Your task to perform on an android device: open a bookmark in the chrome app Image 0: 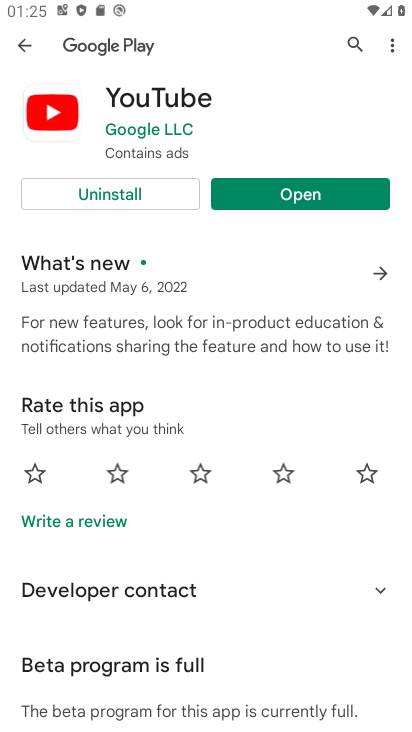
Step 0: press home button
Your task to perform on an android device: open a bookmark in the chrome app Image 1: 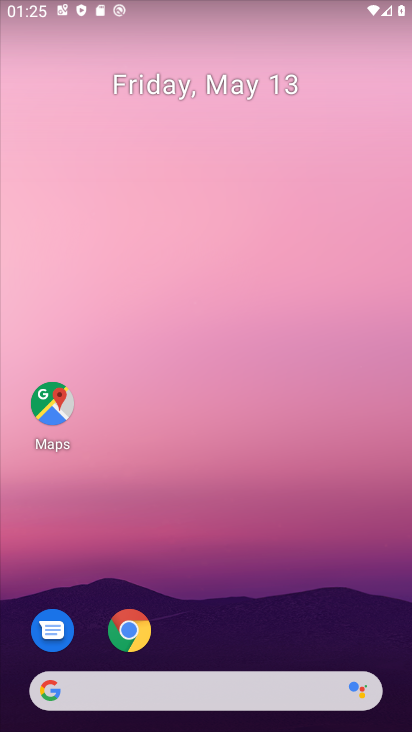
Step 1: drag from (187, 706) to (160, 217)
Your task to perform on an android device: open a bookmark in the chrome app Image 2: 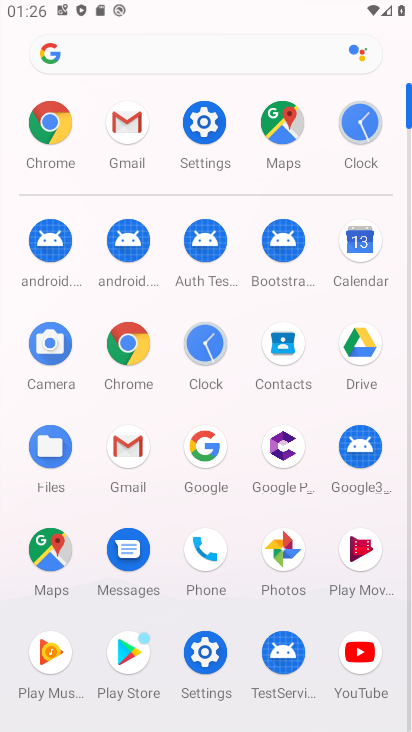
Step 2: click (109, 354)
Your task to perform on an android device: open a bookmark in the chrome app Image 3: 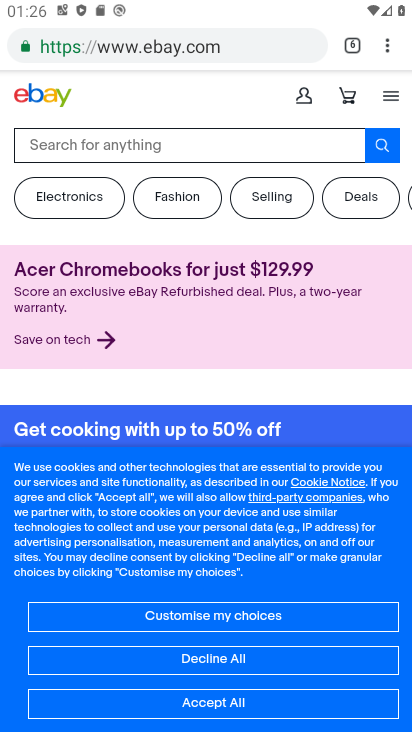
Step 3: click (381, 37)
Your task to perform on an android device: open a bookmark in the chrome app Image 4: 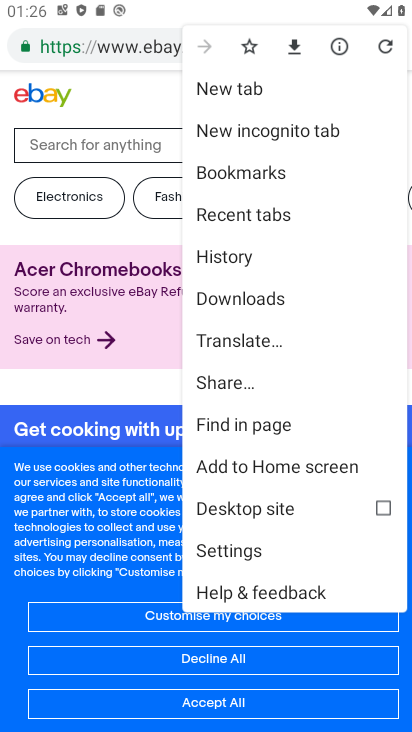
Step 4: click (249, 172)
Your task to perform on an android device: open a bookmark in the chrome app Image 5: 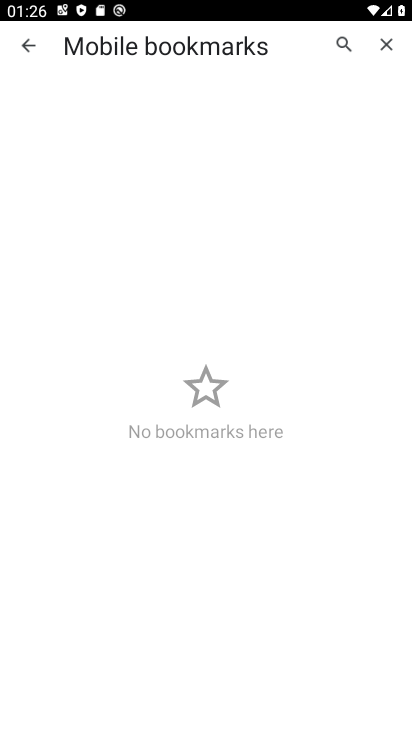
Step 5: task complete